Your task to perform on an android device: Open Maps and search for coffee Image 0: 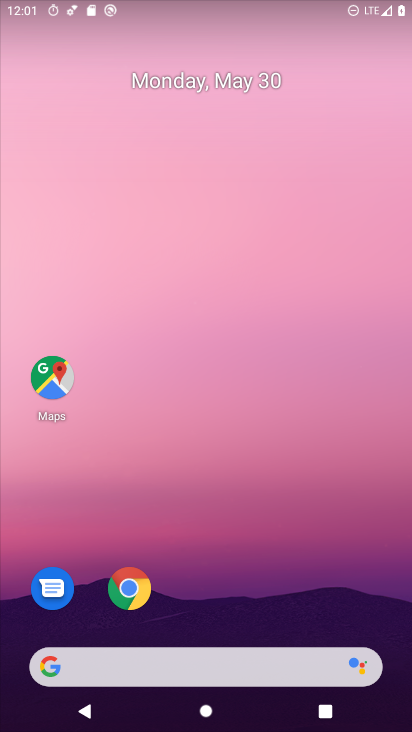
Step 0: drag from (211, 589) to (269, 137)
Your task to perform on an android device: Open Maps and search for coffee Image 1: 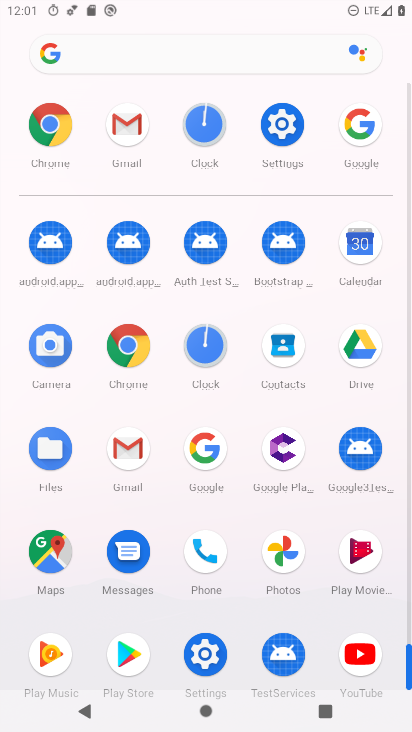
Step 1: click (52, 563)
Your task to perform on an android device: Open Maps and search for coffee Image 2: 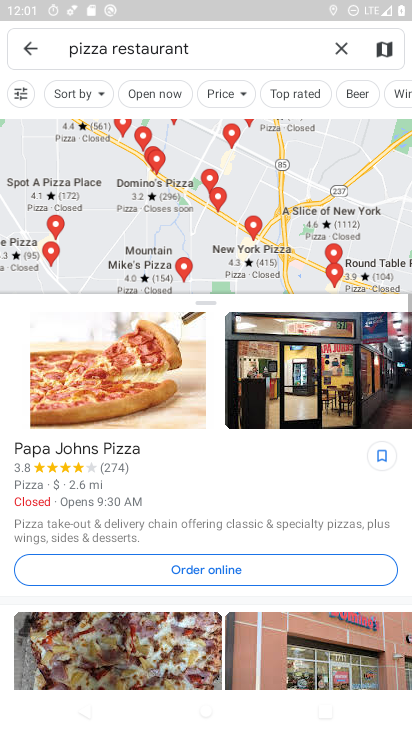
Step 2: click (342, 52)
Your task to perform on an android device: Open Maps and search for coffee Image 3: 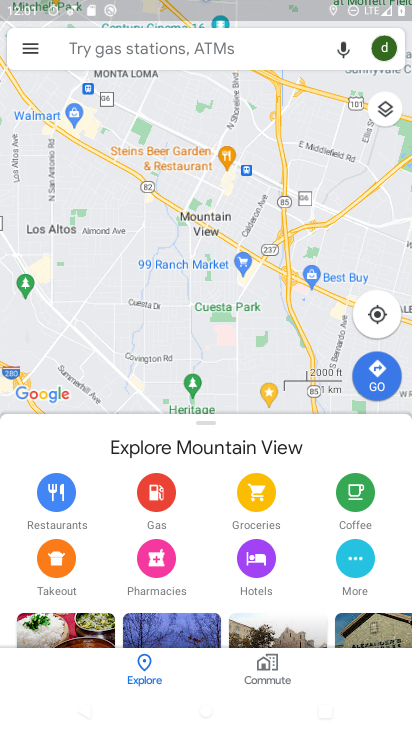
Step 3: click (197, 47)
Your task to perform on an android device: Open Maps and search for coffee Image 4: 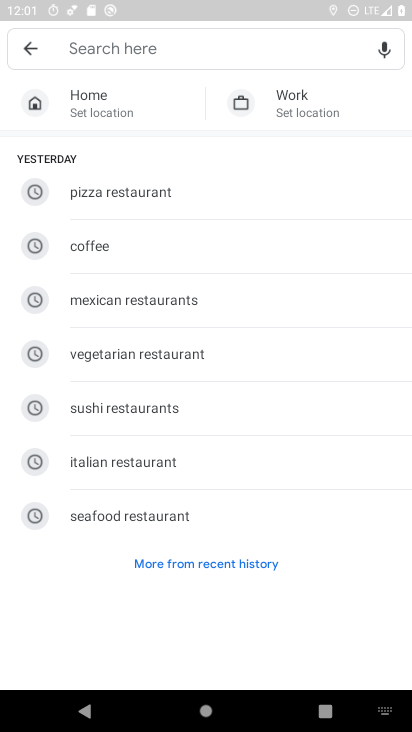
Step 4: click (170, 265)
Your task to perform on an android device: Open Maps and search for coffee Image 5: 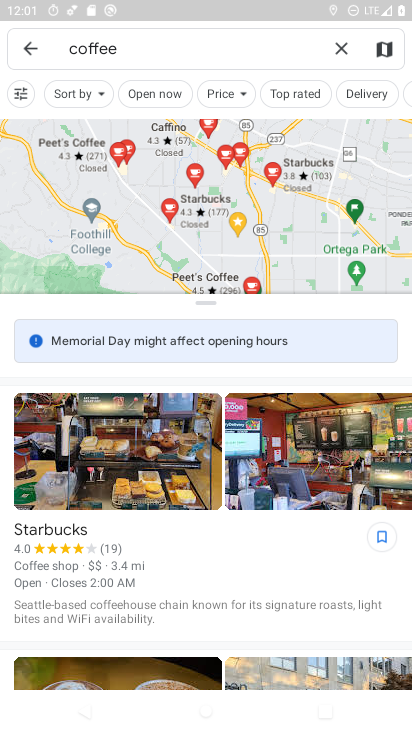
Step 5: task complete